Your task to perform on an android device: change timer sound Image 0: 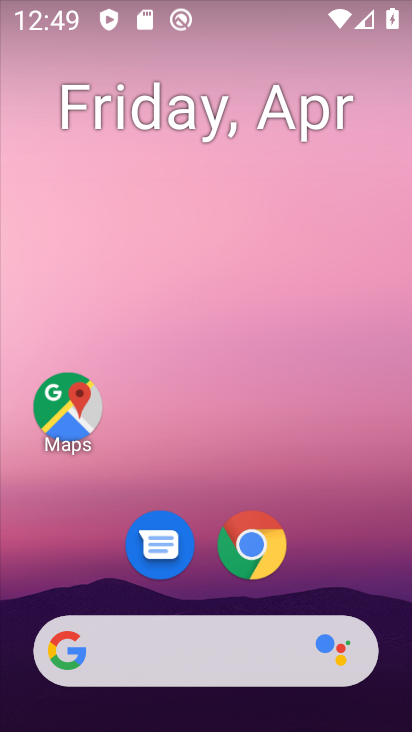
Step 0: drag from (318, 486) to (294, 48)
Your task to perform on an android device: change timer sound Image 1: 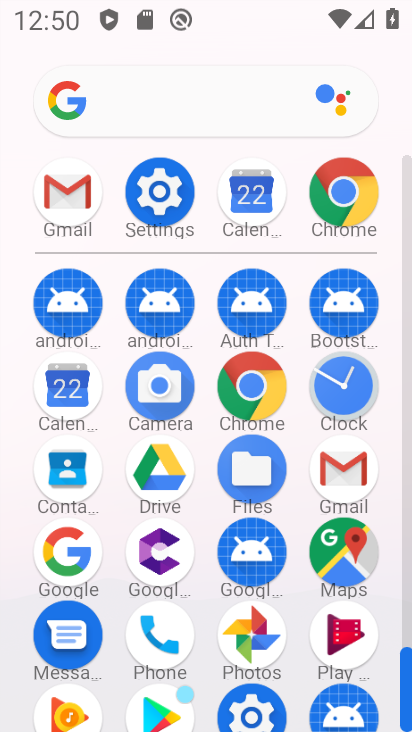
Step 1: click (341, 394)
Your task to perform on an android device: change timer sound Image 2: 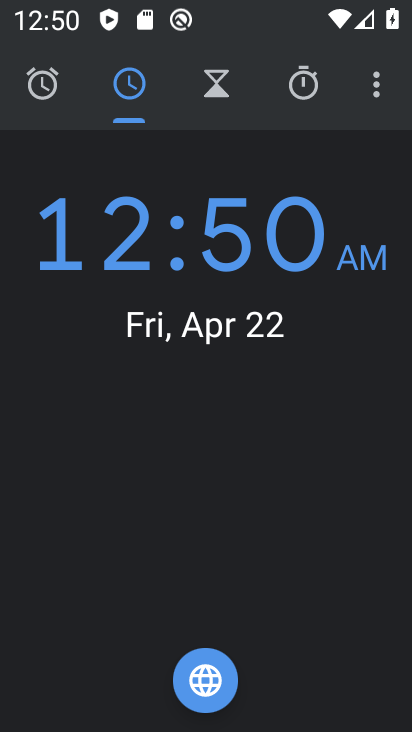
Step 2: click (381, 81)
Your task to perform on an android device: change timer sound Image 3: 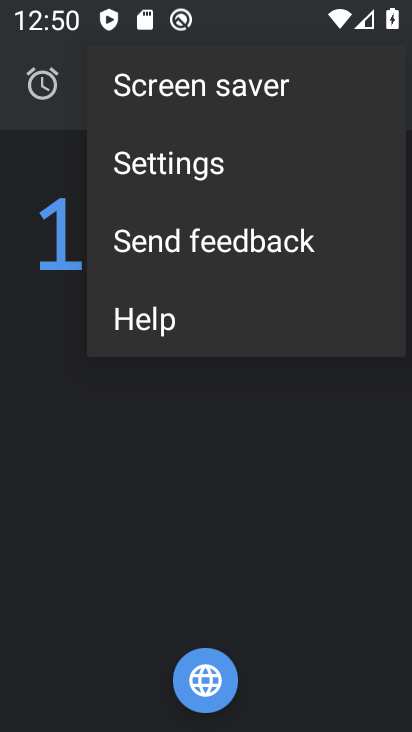
Step 3: click (195, 172)
Your task to perform on an android device: change timer sound Image 4: 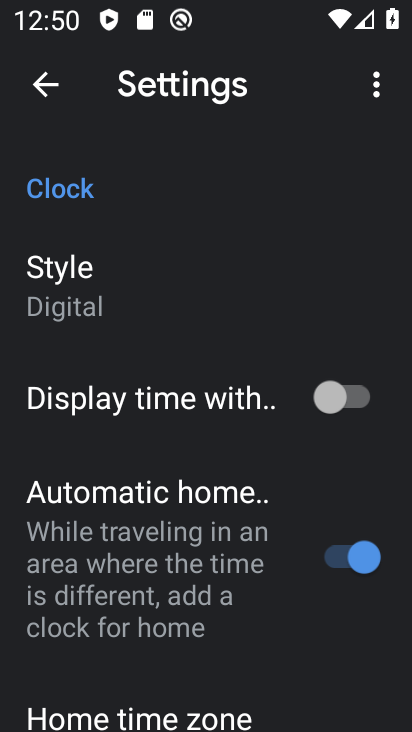
Step 4: drag from (214, 641) to (216, 153)
Your task to perform on an android device: change timer sound Image 5: 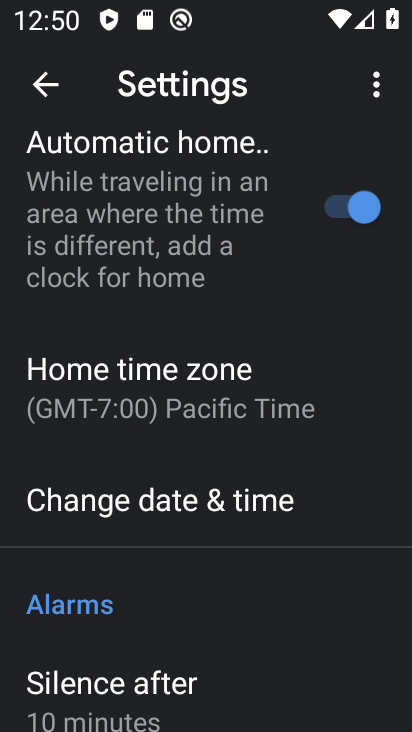
Step 5: click (273, 99)
Your task to perform on an android device: change timer sound Image 6: 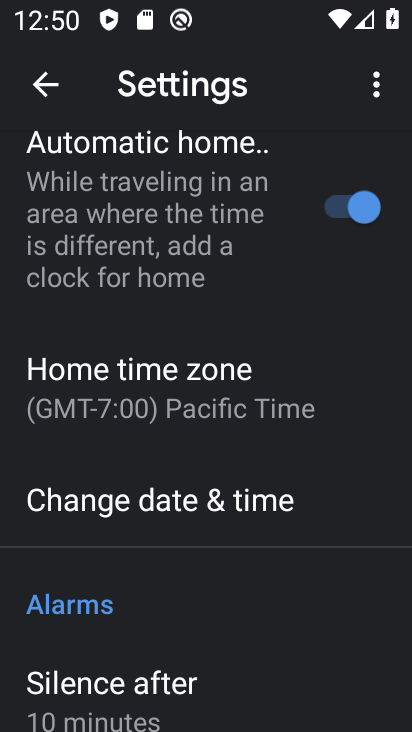
Step 6: drag from (283, 610) to (252, 154)
Your task to perform on an android device: change timer sound Image 7: 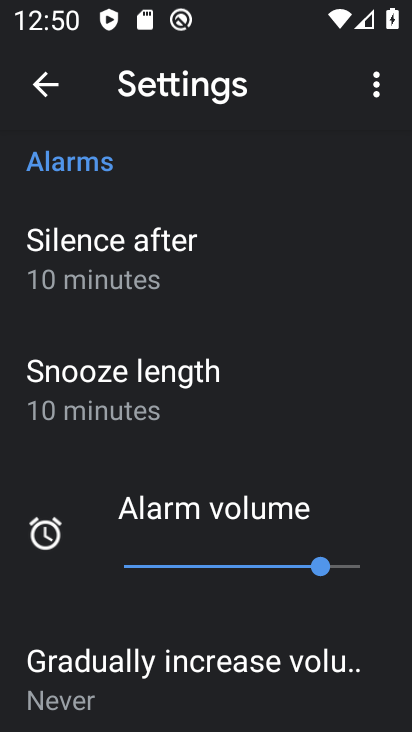
Step 7: drag from (242, 603) to (246, 162)
Your task to perform on an android device: change timer sound Image 8: 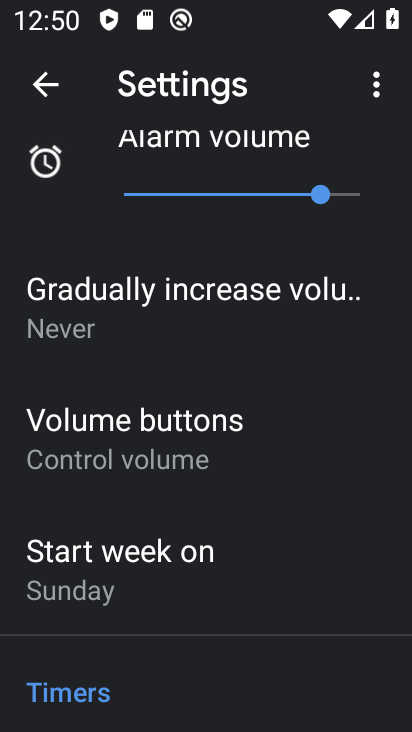
Step 8: drag from (286, 616) to (291, 224)
Your task to perform on an android device: change timer sound Image 9: 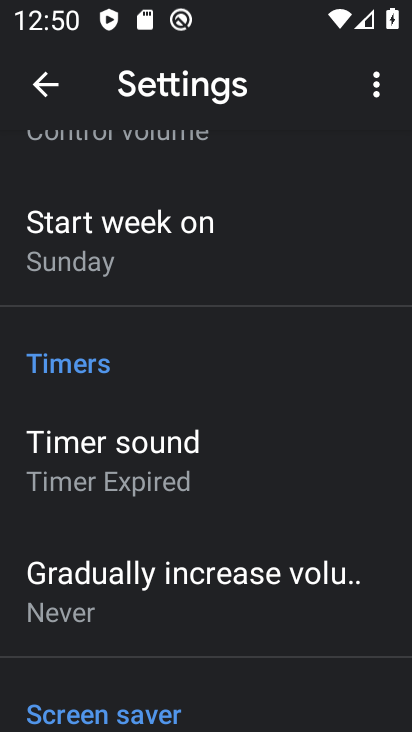
Step 9: click (165, 479)
Your task to perform on an android device: change timer sound Image 10: 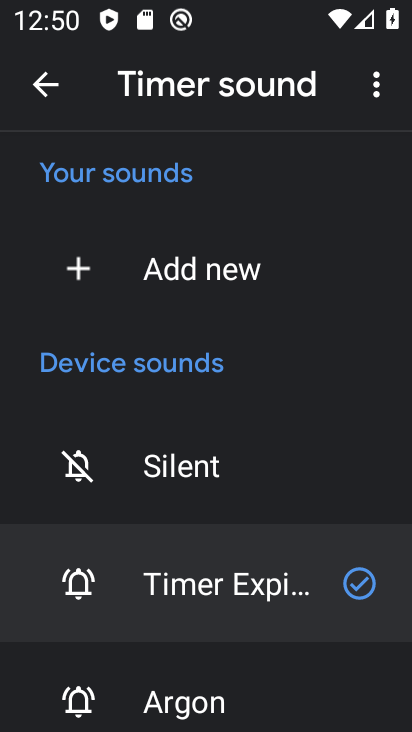
Step 10: click (196, 702)
Your task to perform on an android device: change timer sound Image 11: 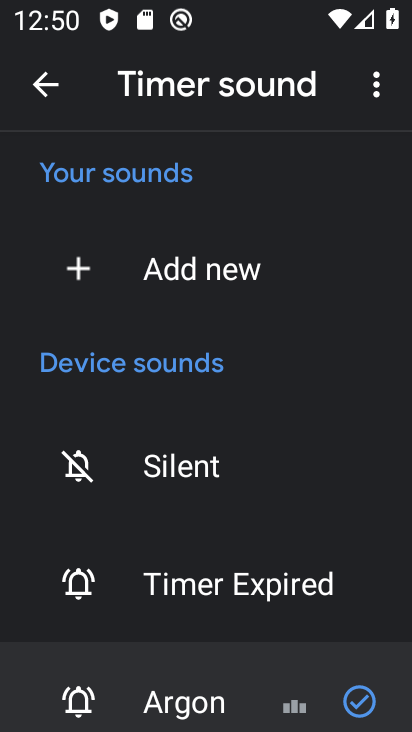
Step 11: task complete